Your task to perform on an android device: Open Youtube and go to the subscriptions tab Image 0: 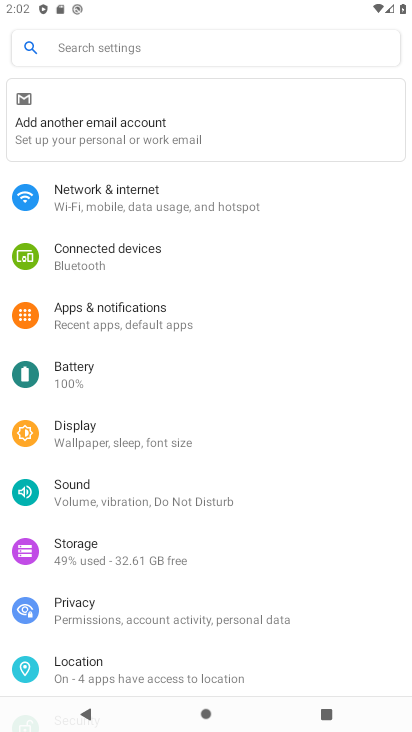
Step 0: press back button
Your task to perform on an android device: Open Youtube and go to the subscriptions tab Image 1: 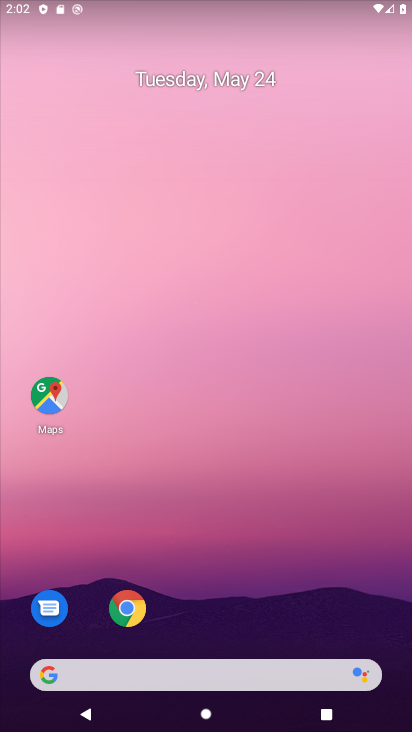
Step 1: drag from (234, 578) to (229, 34)
Your task to perform on an android device: Open Youtube and go to the subscriptions tab Image 2: 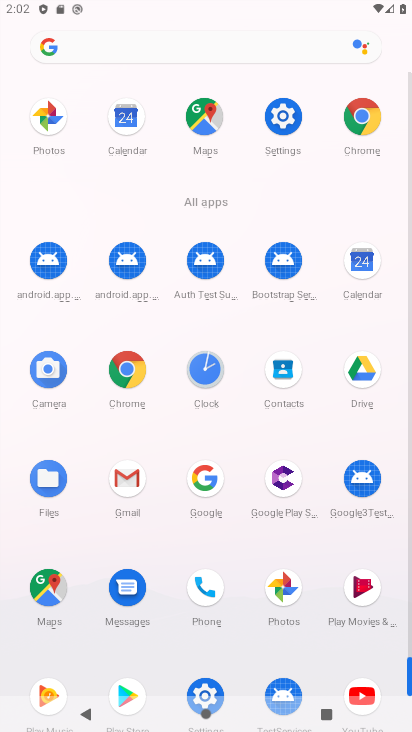
Step 2: drag from (17, 540) to (15, 216)
Your task to perform on an android device: Open Youtube and go to the subscriptions tab Image 3: 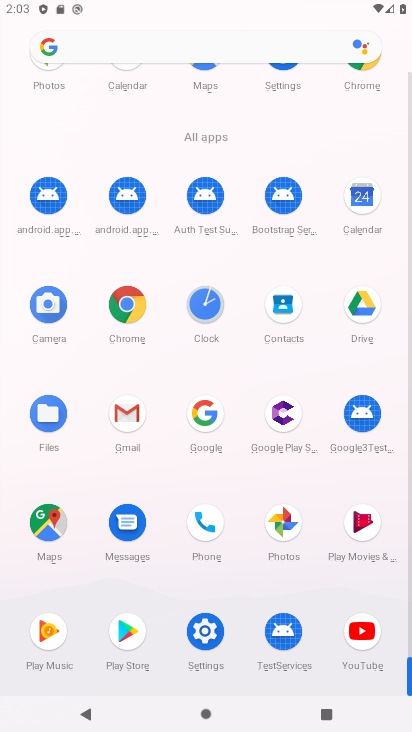
Step 3: click (356, 628)
Your task to perform on an android device: Open Youtube and go to the subscriptions tab Image 4: 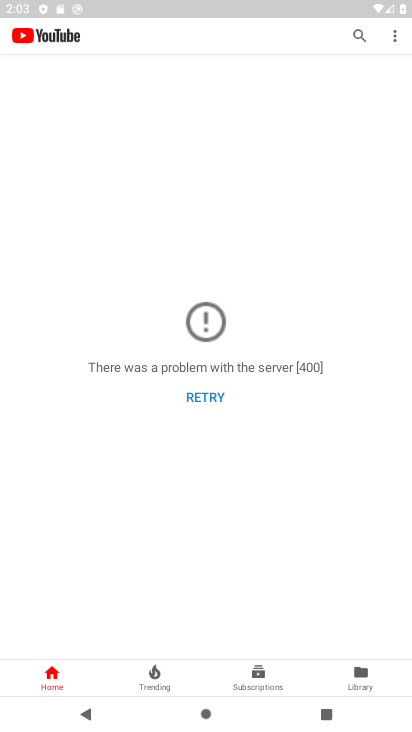
Step 4: click (246, 680)
Your task to perform on an android device: Open Youtube and go to the subscriptions tab Image 5: 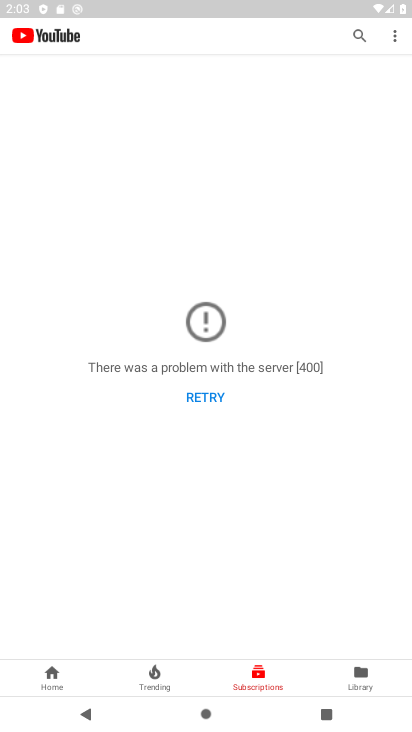
Step 5: task complete